Your task to perform on an android device: Set the phone to "Do not disturb". Image 0: 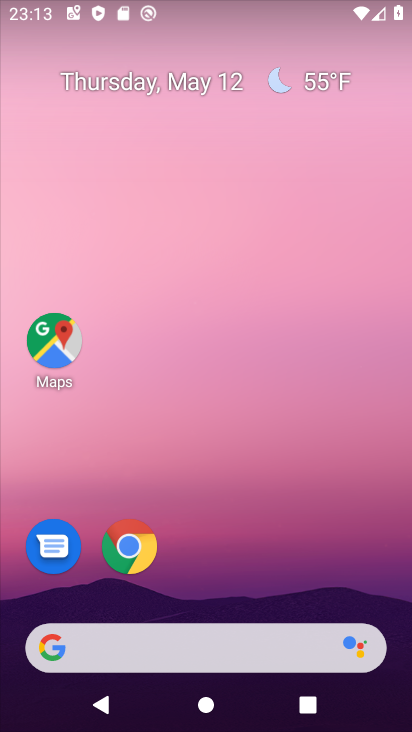
Step 0: drag from (223, 0) to (220, 435)
Your task to perform on an android device: Set the phone to "Do not disturb". Image 1: 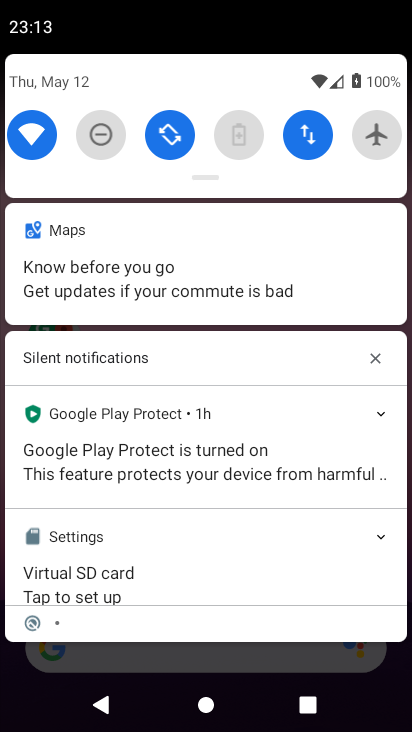
Step 1: click (108, 131)
Your task to perform on an android device: Set the phone to "Do not disturb". Image 2: 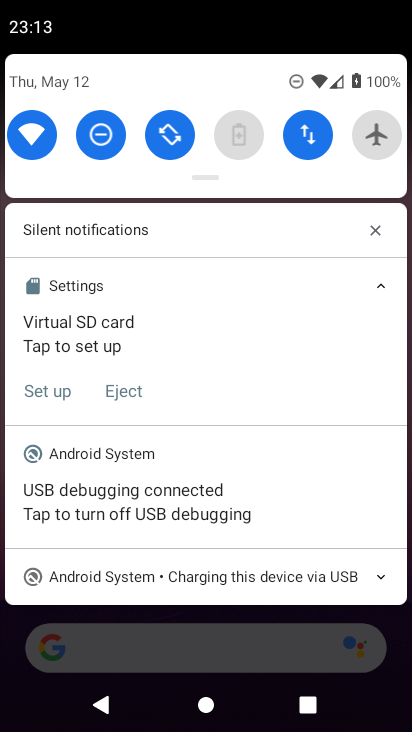
Step 2: task complete